Your task to perform on an android device: open chrome privacy settings Image 0: 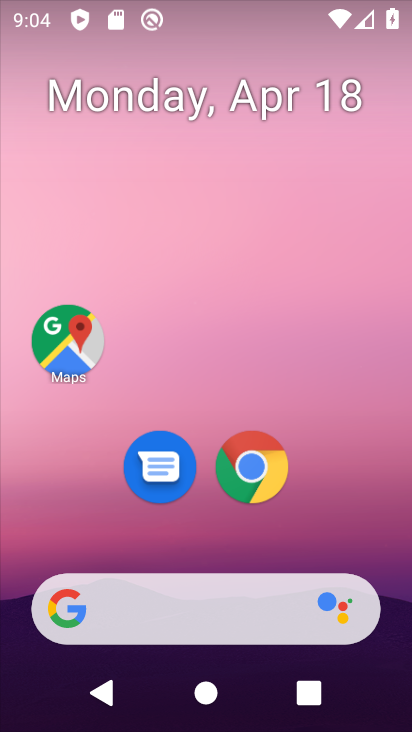
Step 0: click (257, 463)
Your task to perform on an android device: open chrome privacy settings Image 1: 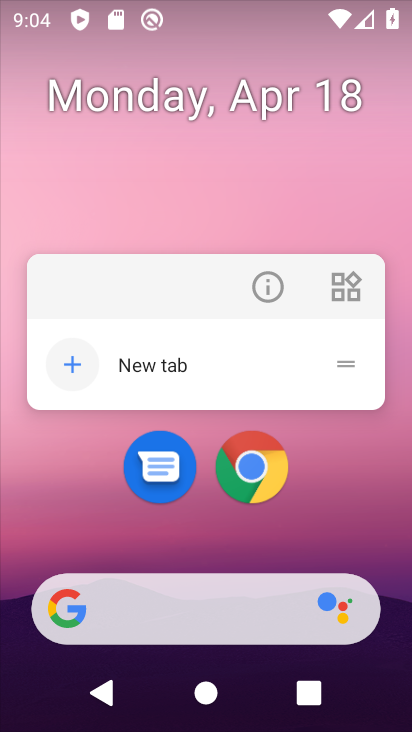
Step 1: click (257, 463)
Your task to perform on an android device: open chrome privacy settings Image 2: 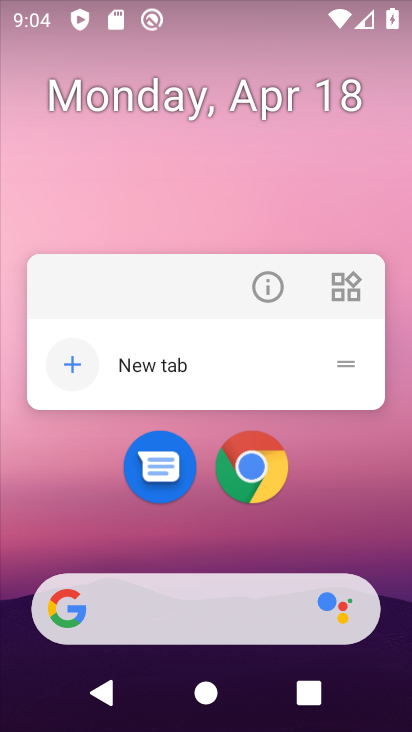
Step 2: click (257, 463)
Your task to perform on an android device: open chrome privacy settings Image 3: 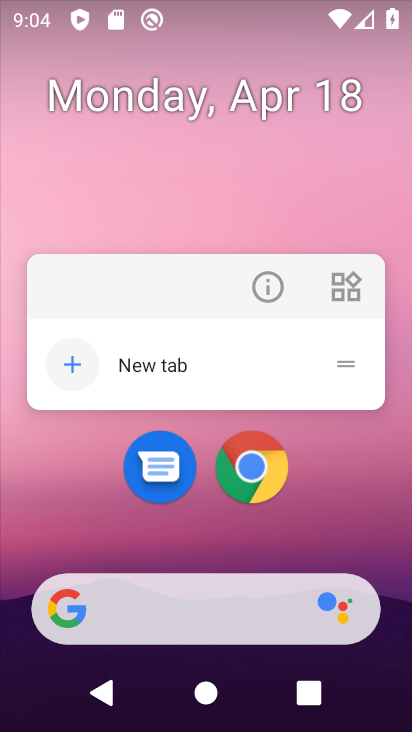
Step 3: click (257, 463)
Your task to perform on an android device: open chrome privacy settings Image 4: 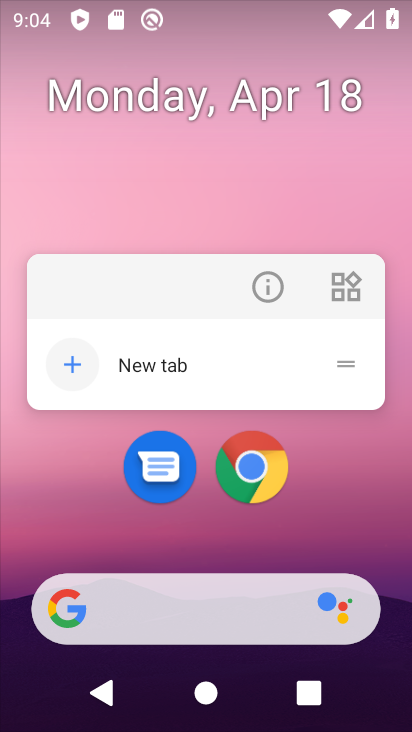
Step 4: click (257, 463)
Your task to perform on an android device: open chrome privacy settings Image 5: 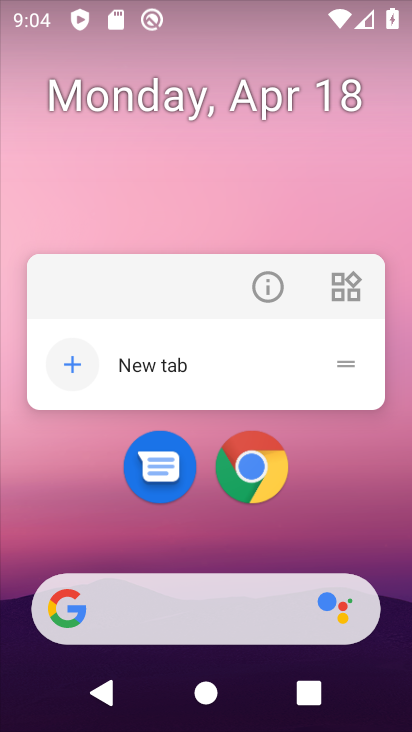
Step 5: click (257, 463)
Your task to perform on an android device: open chrome privacy settings Image 6: 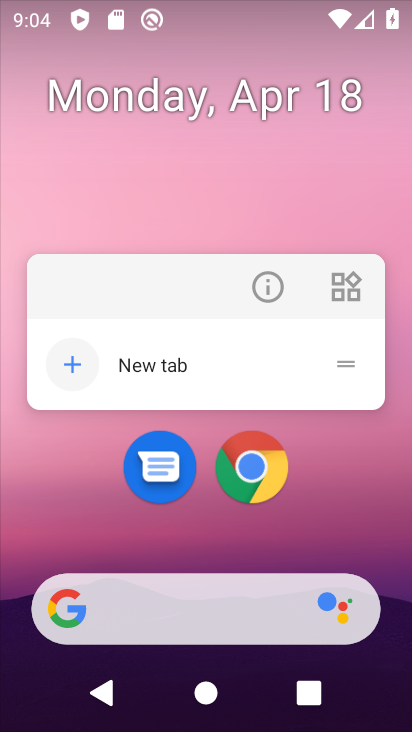
Step 6: click (281, 457)
Your task to perform on an android device: open chrome privacy settings Image 7: 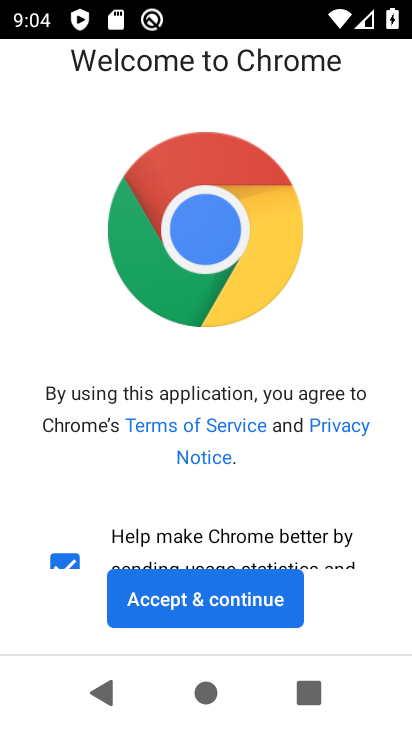
Step 7: click (182, 593)
Your task to perform on an android device: open chrome privacy settings Image 8: 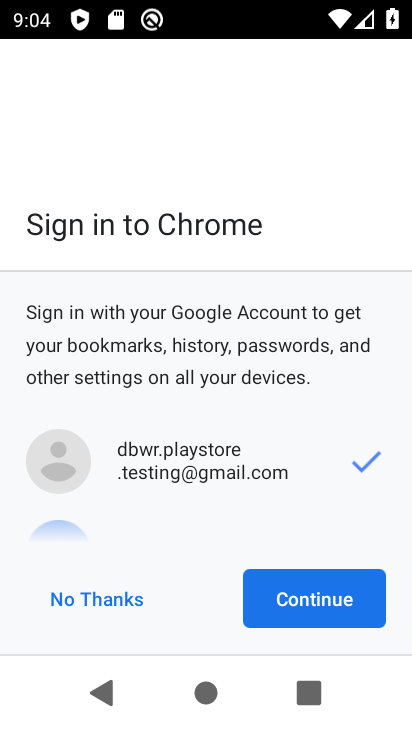
Step 8: click (312, 607)
Your task to perform on an android device: open chrome privacy settings Image 9: 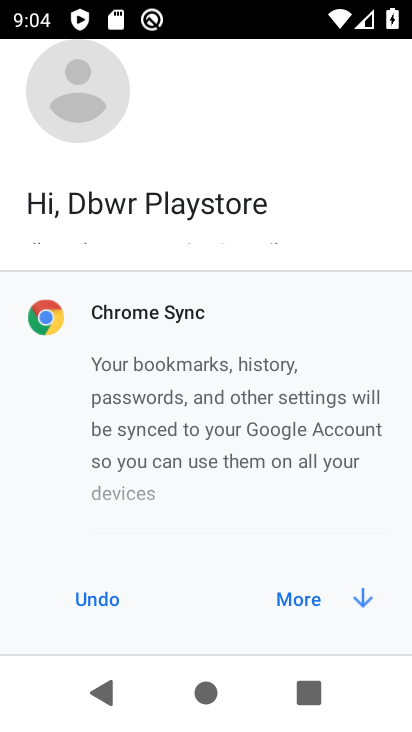
Step 9: click (312, 607)
Your task to perform on an android device: open chrome privacy settings Image 10: 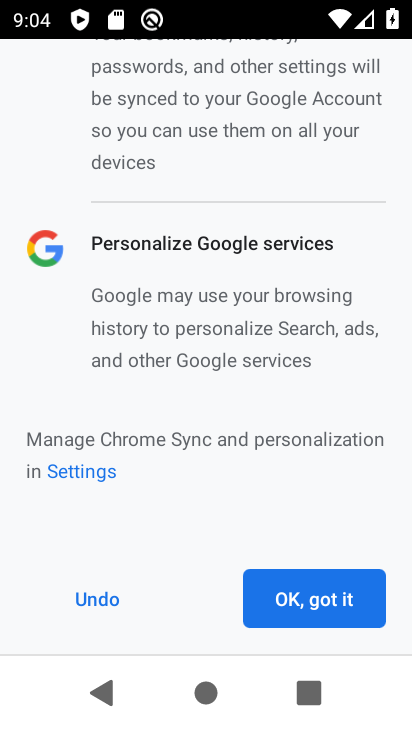
Step 10: click (333, 603)
Your task to perform on an android device: open chrome privacy settings Image 11: 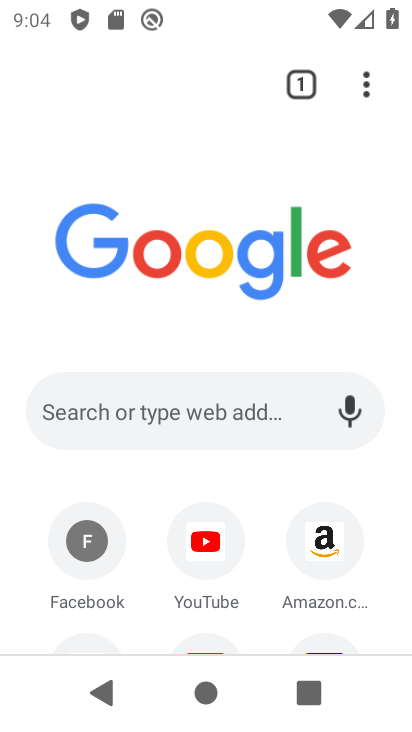
Step 11: click (369, 85)
Your task to perform on an android device: open chrome privacy settings Image 12: 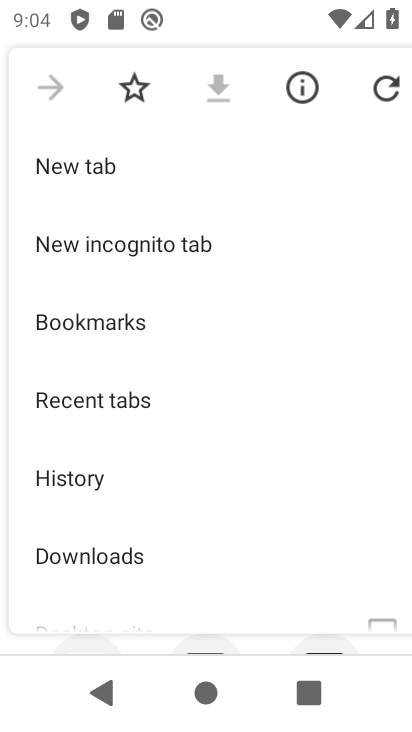
Step 12: drag from (148, 541) to (194, 145)
Your task to perform on an android device: open chrome privacy settings Image 13: 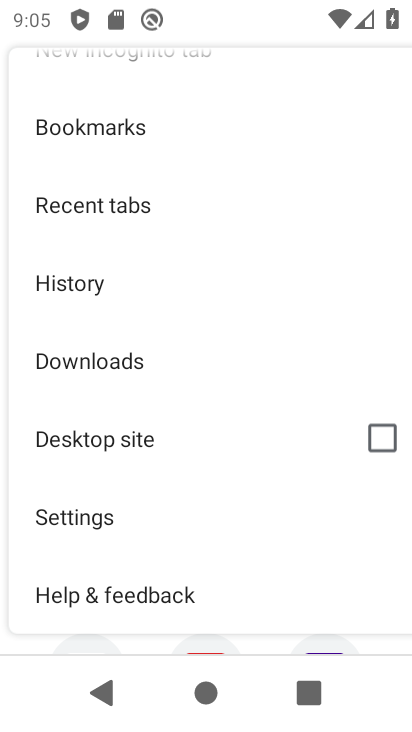
Step 13: click (78, 500)
Your task to perform on an android device: open chrome privacy settings Image 14: 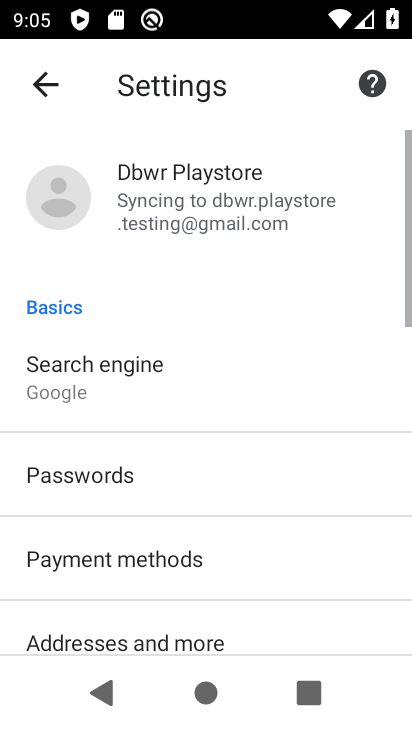
Step 14: drag from (126, 552) to (193, 131)
Your task to perform on an android device: open chrome privacy settings Image 15: 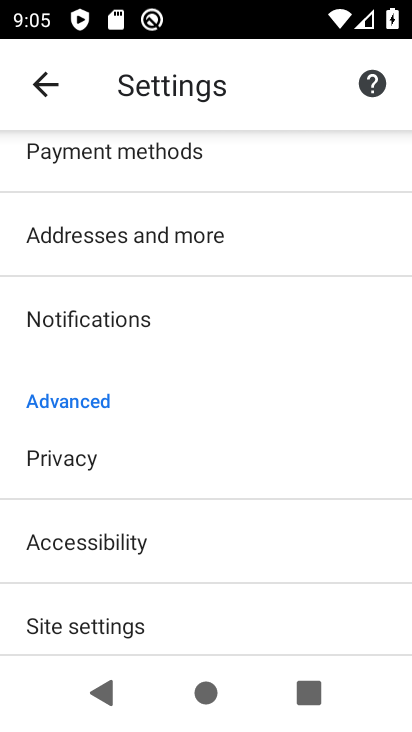
Step 15: click (107, 471)
Your task to perform on an android device: open chrome privacy settings Image 16: 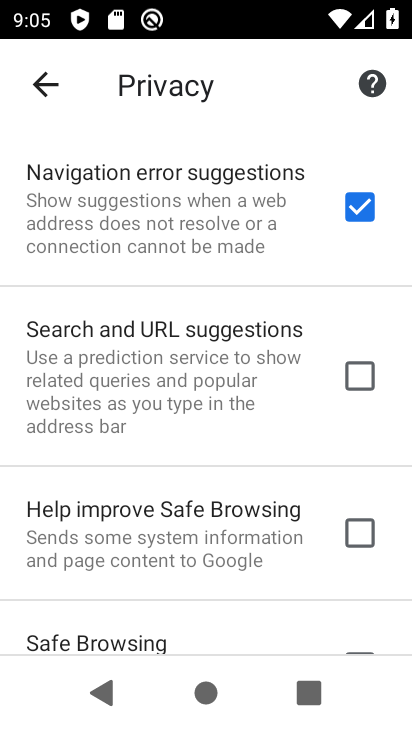
Step 16: task complete